Your task to perform on an android device: change the clock style Image 0: 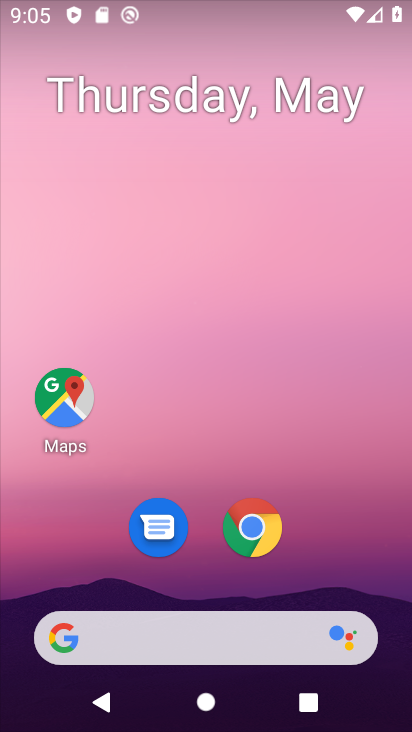
Step 0: drag from (181, 450) to (248, 63)
Your task to perform on an android device: change the clock style Image 1: 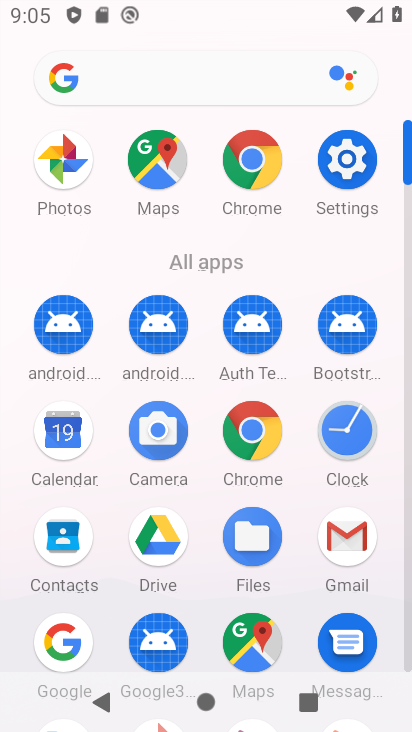
Step 1: click (344, 440)
Your task to perform on an android device: change the clock style Image 2: 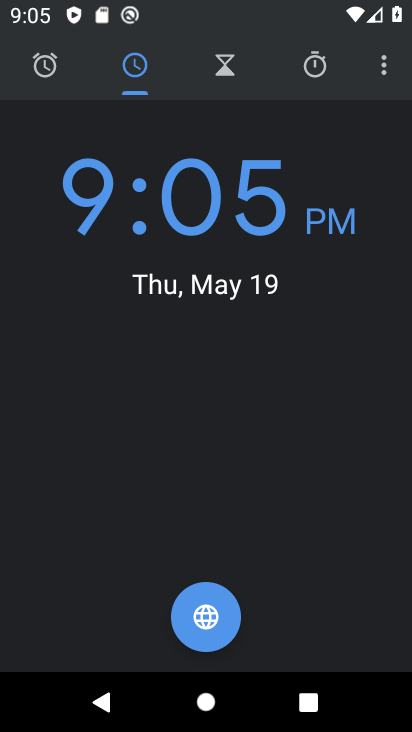
Step 2: click (384, 64)
Your task to perform on an android device: change the clock style Image 3: 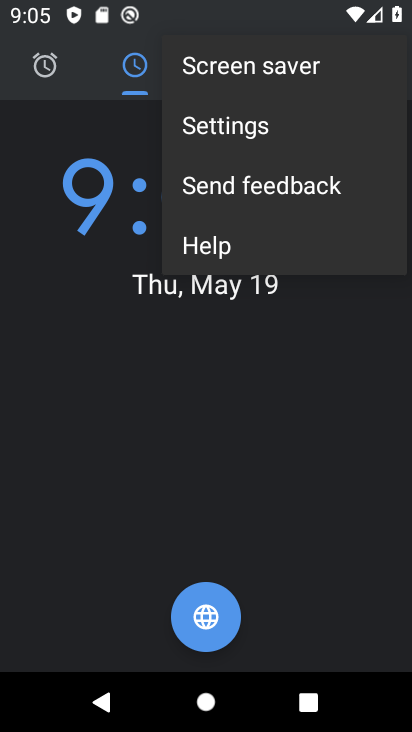
Step 3: click (220, 135)
Your task to perform on an android device: change the clock style Image 4: 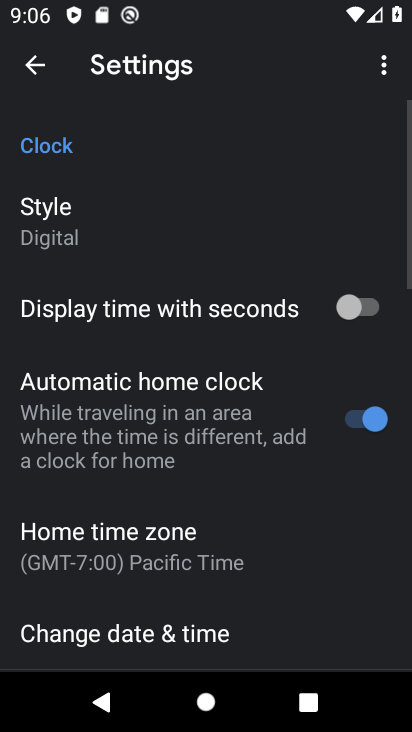
Step 4: click (80, 241)
Your task to perform on an android device: change the clock style Image 5: 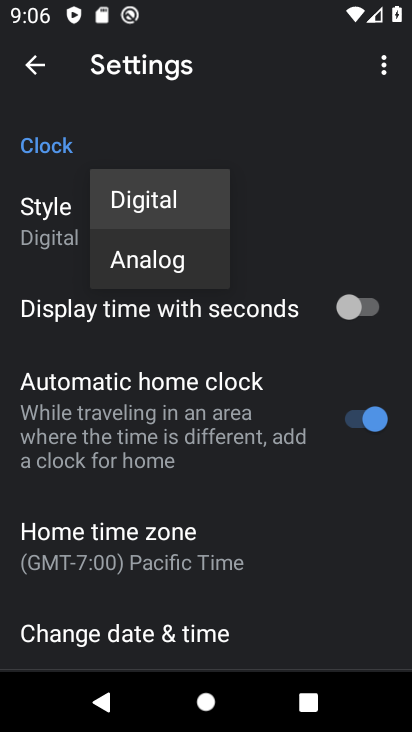
Step 5: click (107, 265)
Your task to perform on an android device: change the clock style Image 6: 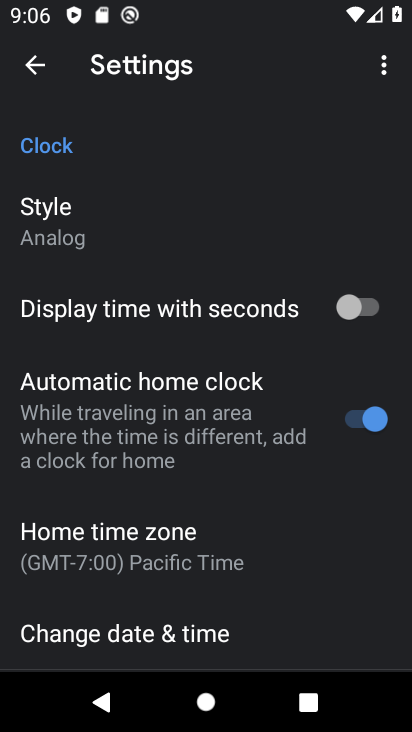
Step 6: task complete